Your task to perform on an android device: change notification settings in the gmail app Image 0: 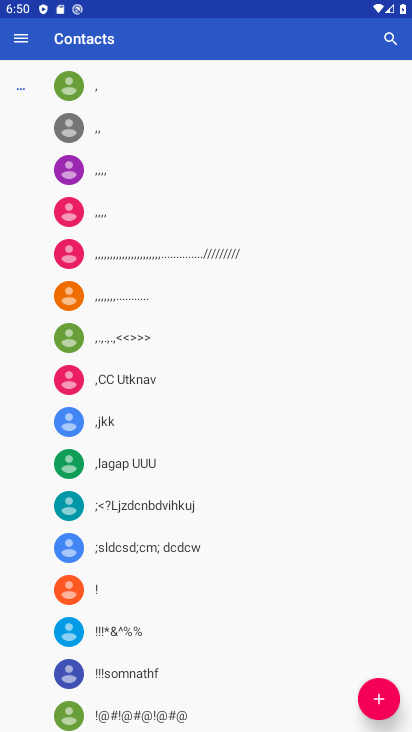
Step 0: press home button
Your task to perform on an android device: change notification settings in the gmail app Image 1: 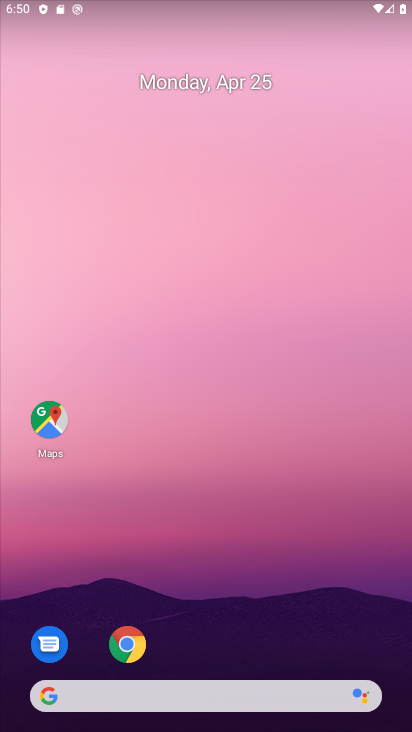
Step 1: drag from (310, 593) to (280, 131)
Your task to perform on an android device: change notification settings in the gmail app Image 2: 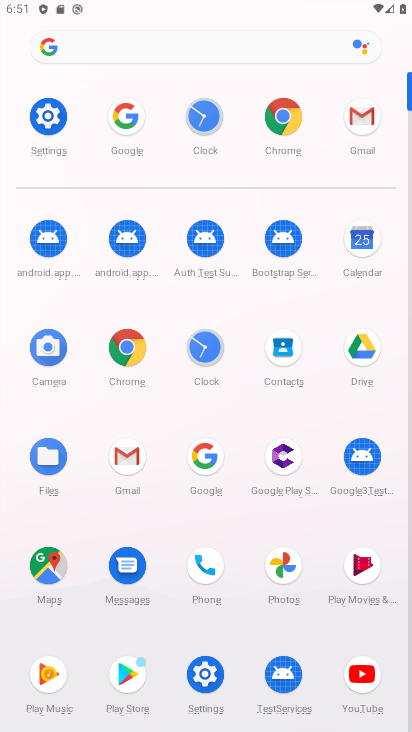
Step 2: click (127, 457)
Your task to perform on an android device: change notification settings in the gmail app Image 3: 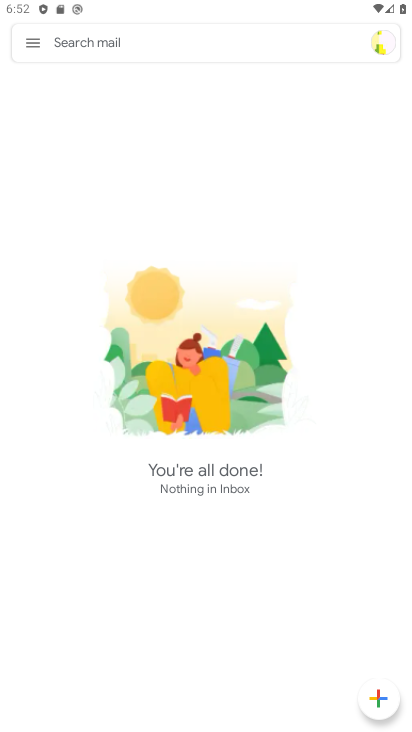
Step 3: click (33, 41)
Your task to perform on an android device: change notification settings in the gmail app Image 4: 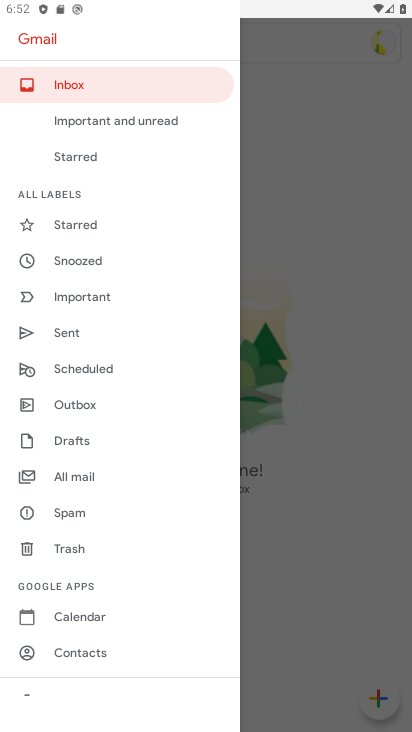
Step 4: drag from (125, 539) to (136, 269)
Your task to perform on an android device: change notification settings in the gmail app Image 5: 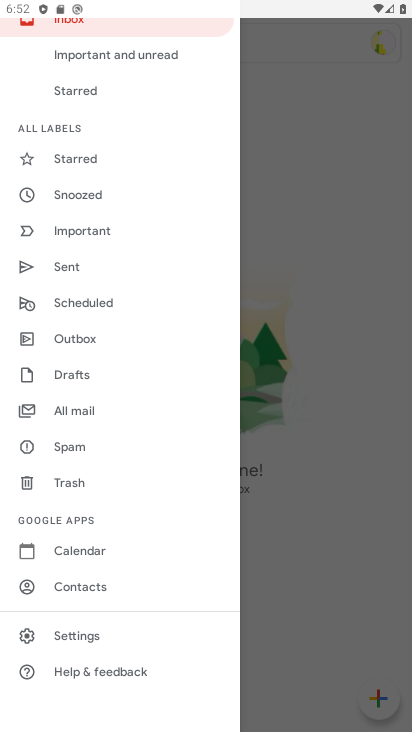
Step 5: click (84, 635)
Your task to perform on an android device: change notification settings in the gmail app Image 6: 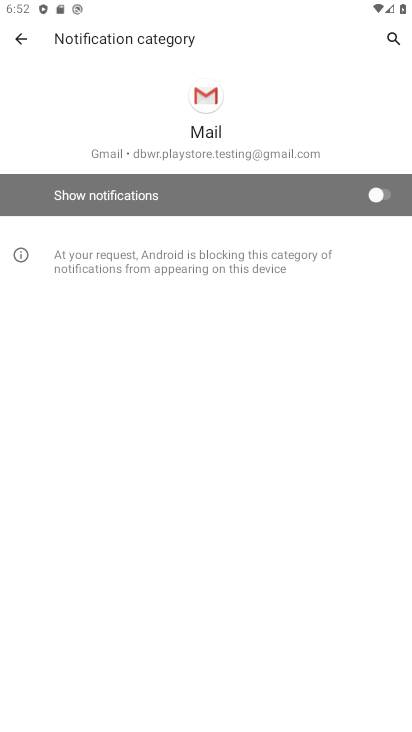
Step 6: click (388, 194)
Your task to perform on an android device: change notification settings in the gmail app Image 7: 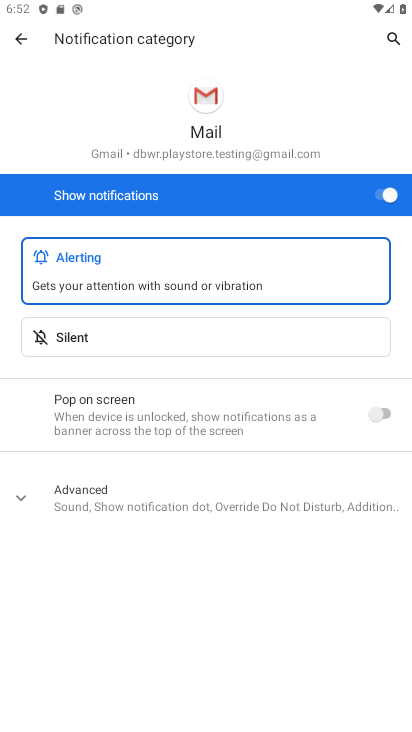
Step 7: task complete